Your task to perform on an android device: Go to Yahoo.com Image 0: 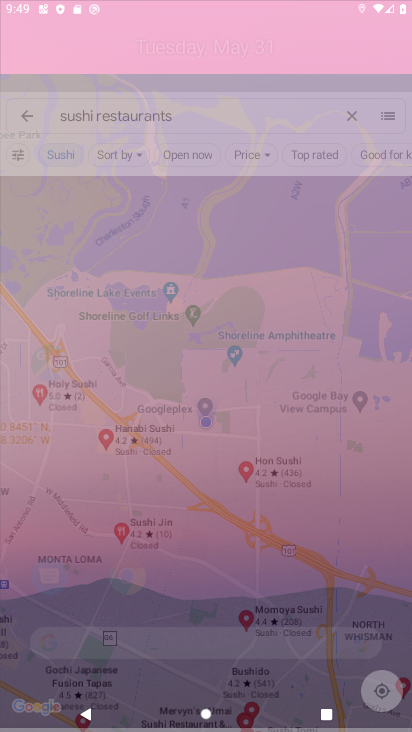
Step 0: drag from (198, 638) to (132, 46)
Your task to perform on an android device: Go to Yahoo.com Image 1: 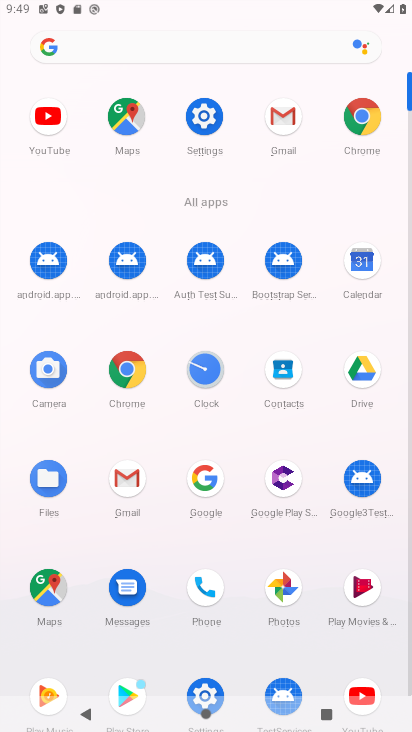
Step 1: click (121, 362)
Your task to perform on an android device: Go to Yahoo.com Image 2: 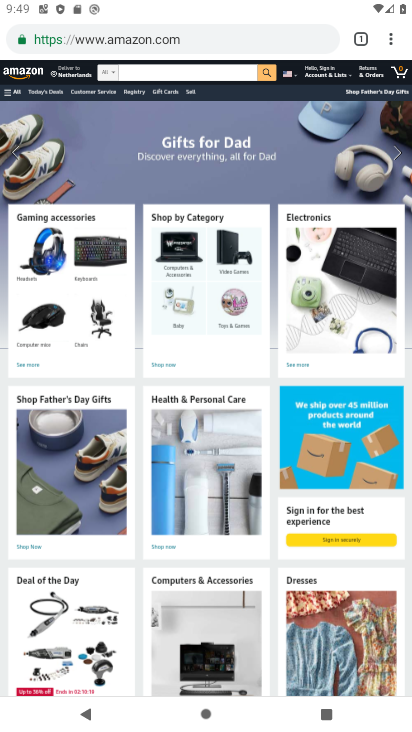
Step 2: click (354, 37)
Your task to perform on an android device: Go to Yahoo.com Image 3: 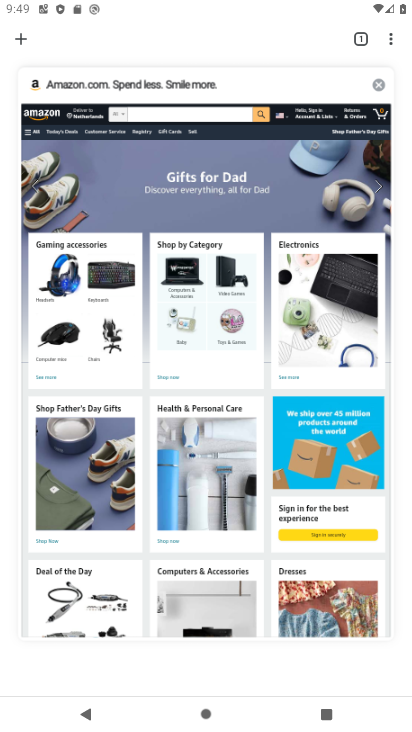
Step 3: click (15, 29)
Your task to perform on an android device: Go to Yahoo.com Image 4: 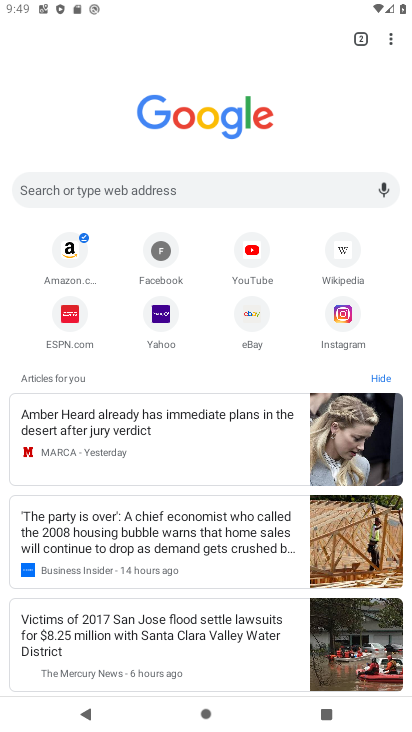
Step 4: click (163, 312)
Your task to perform on an android device: Go to Yahoo.com Image 5: 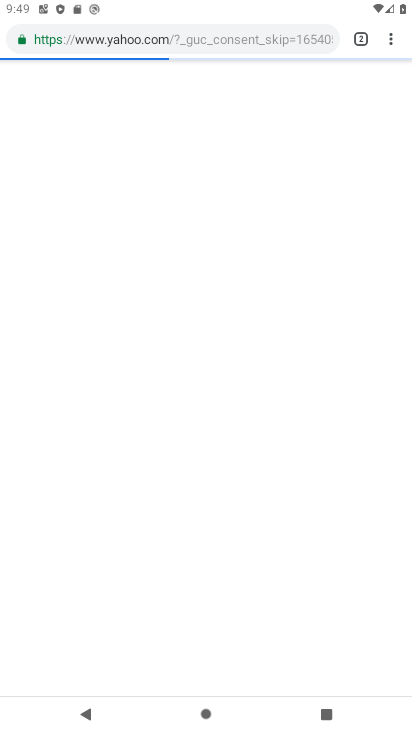
Step 5: task complete